Your task to perform on an android device: Search for Italian restaurants on Maps Image 0: 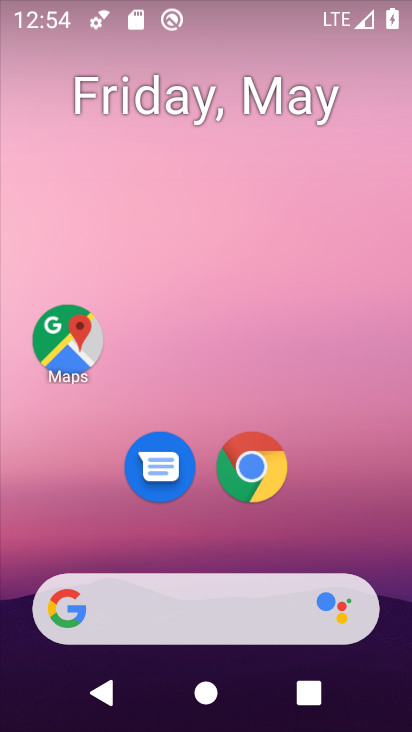
Step 0: drag from (341, 501) to (342, 93)
Your task to perform on an android device: Search for Italian restaurants on Maps Image 1: 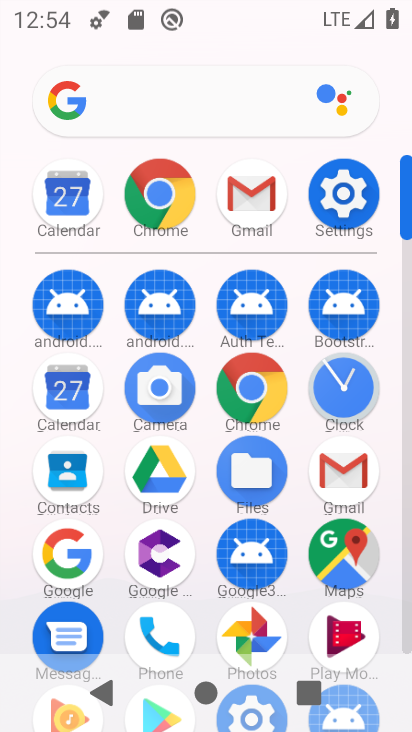
Step 1: click (343, 536)
Your task to perform on an android device: Search for Italian restaurants on Maps Image 2: 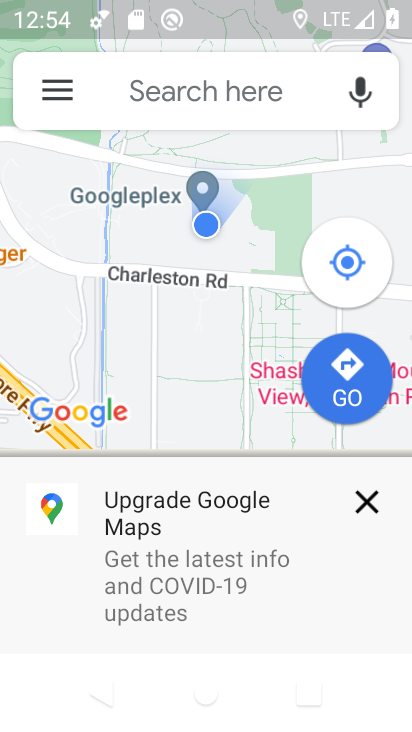
Step 2: click (207, 121)
Your task to perform on an android device: Search for Italian restaurants on Maps Image 3: 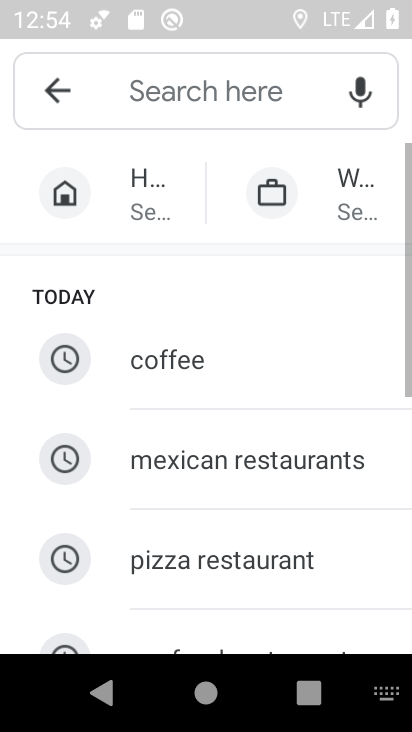
Step 3: drag from (274, 582) to (303, 220)
Your task to perform on an android device: Search for Italian restaurants on Maps Image 4: 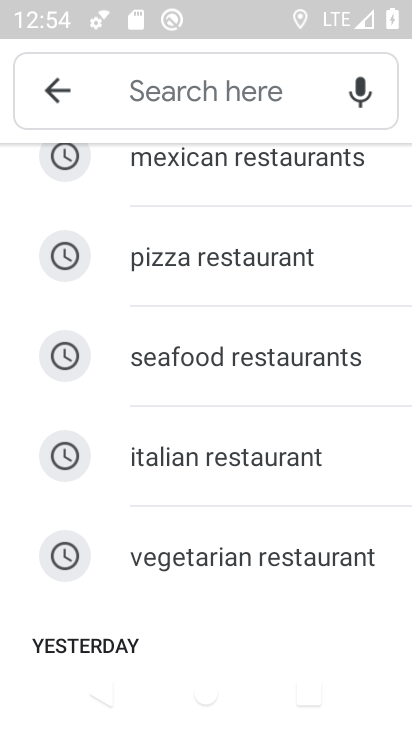
Step 4: click (224, 464)
Your task to perform on an android device: Search for Italian restaurants on Maps Image 5: 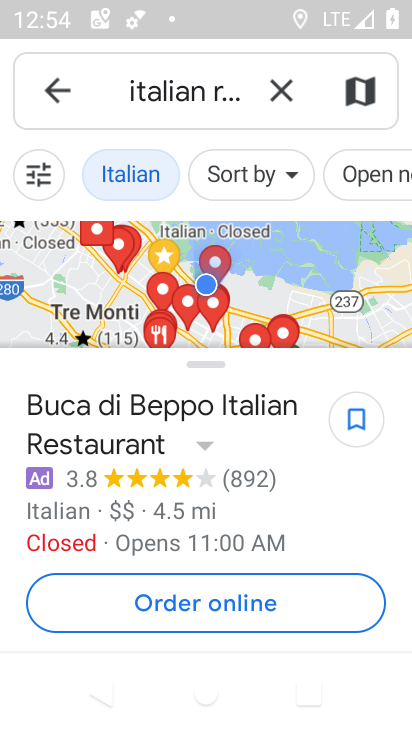
Step 5: task complete